Your task to perform on an android device: change the upload size in google photos Image 0: 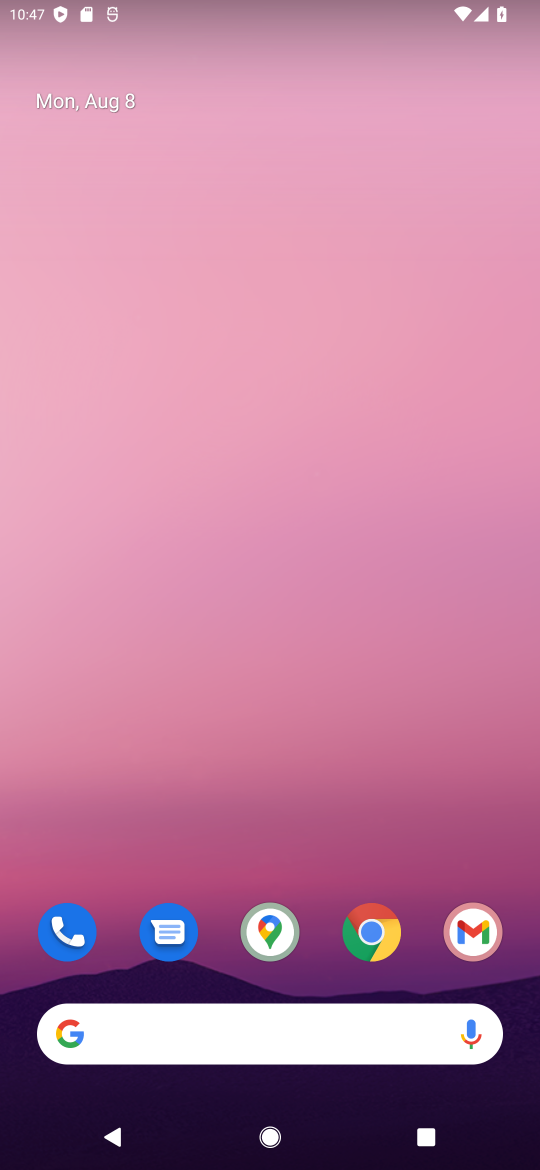
Step 0: drag from (268, 836) to (291, 166)
Your task to perform on an android device: change the upload size in google photos Image 1: 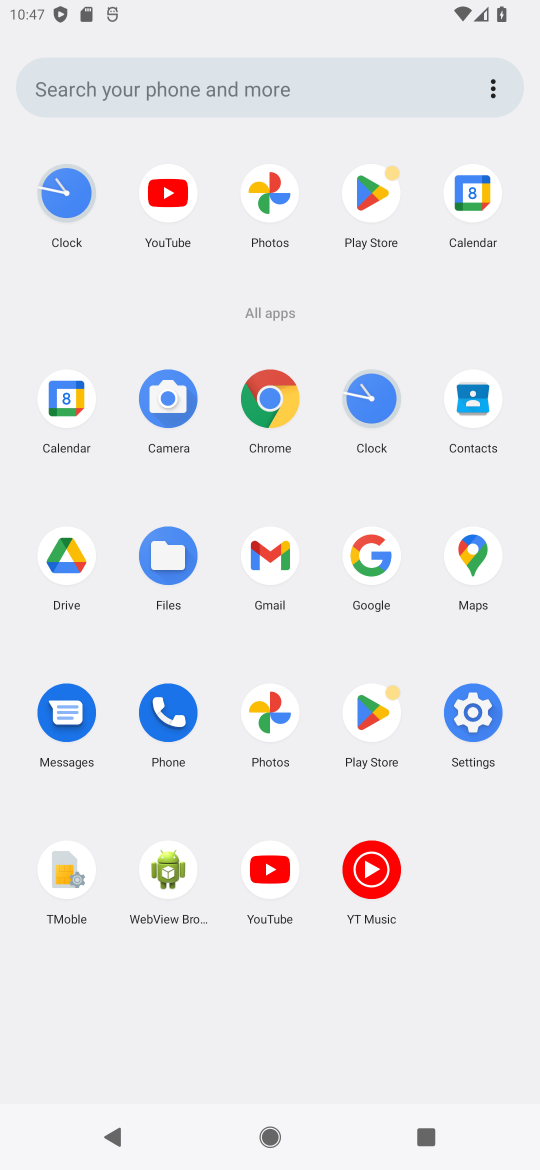
Step 1: click (273, 182)
Your task to perform on an android device: change the upload size in google photos Image 2: 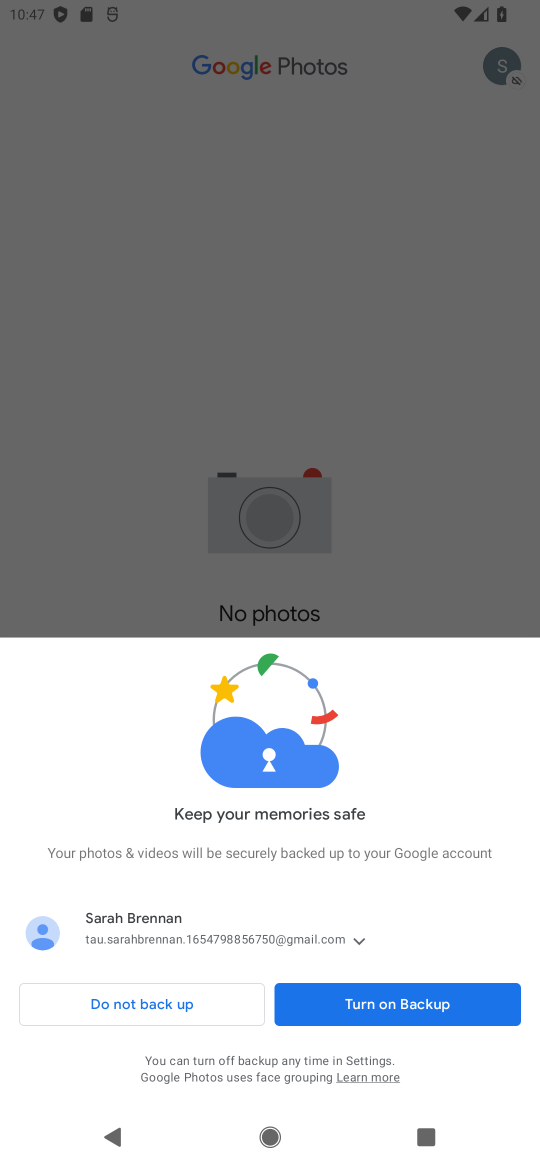
Step 2: click (411, 1019)
Your task to perform on an android device: change the upload size in google photos Image 3: 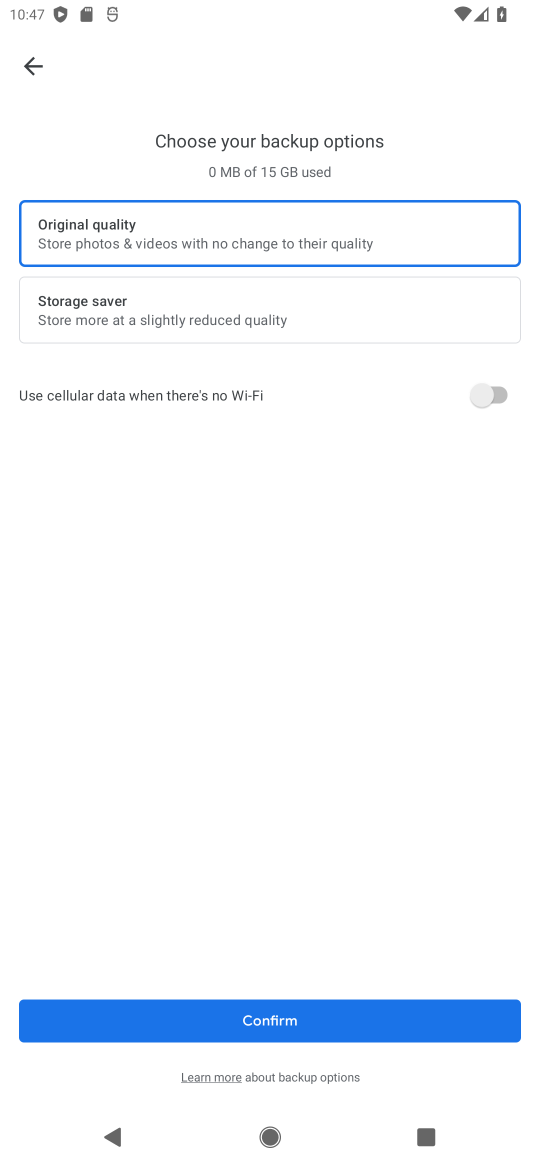
Step 3: click (206, 323)
Your task to perform on an android device: change the upload size in google photos Image 4: 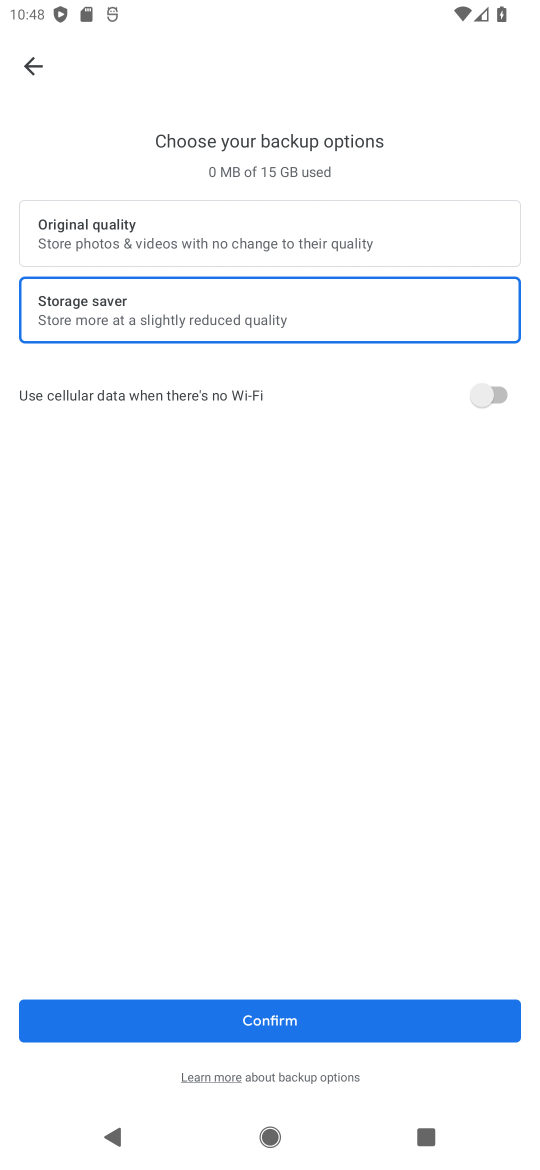
Step 4: task complete